Your task to perform on an android device: set default search engine in the chrome app Image 0: 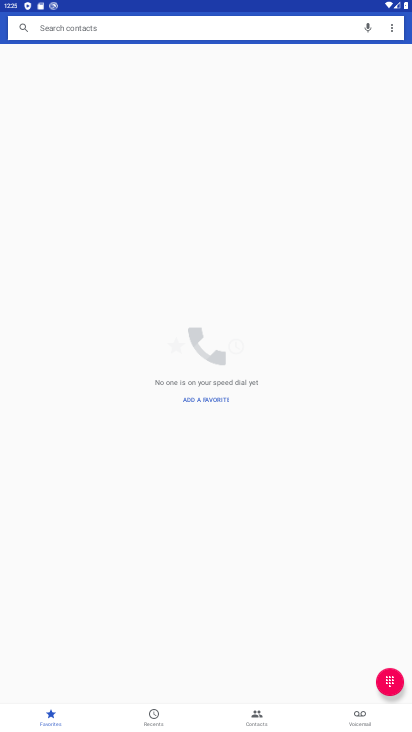
Step 0: press home button
Your task to perform on an android device: set default search engine in the chrome app Image 1: 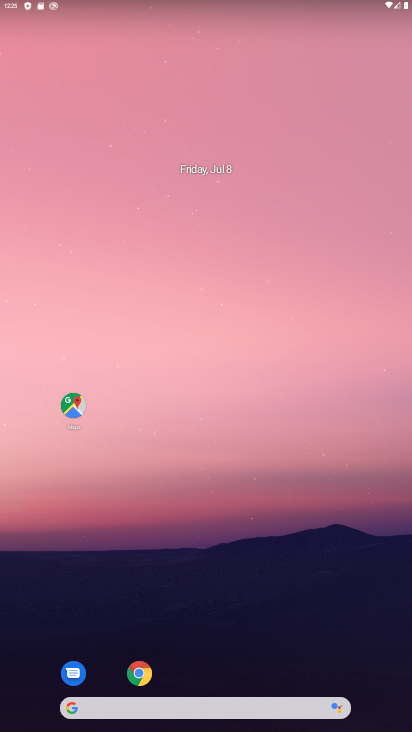
Step 1: drag from (233, 667) to (248, 179)
Your task to perform on an android device: set default search engine in the chrome app Image 2: 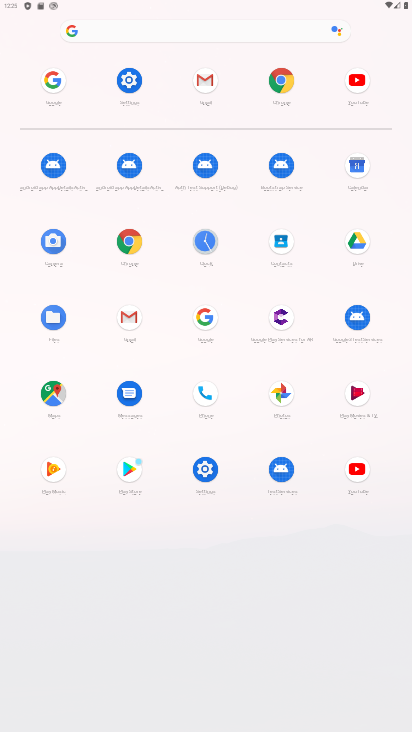
Step 2: click (126, 244)
Your task to perform on an android device: set default search engine in the chrome app Image 3: 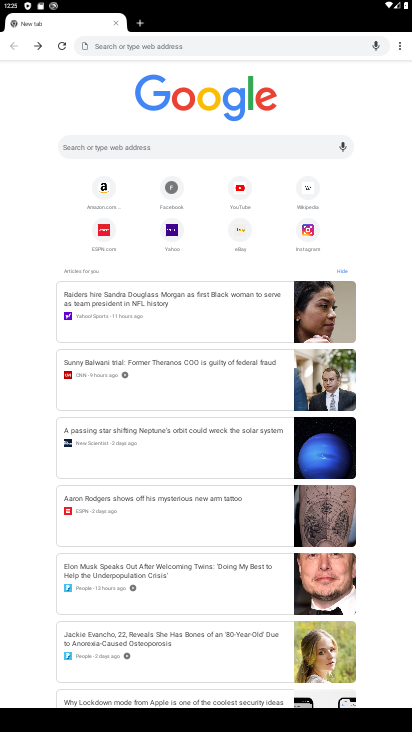
Step 3: click (397, 46)
Your task to perform on an android device: set default search engine in the chrome app Image 4: 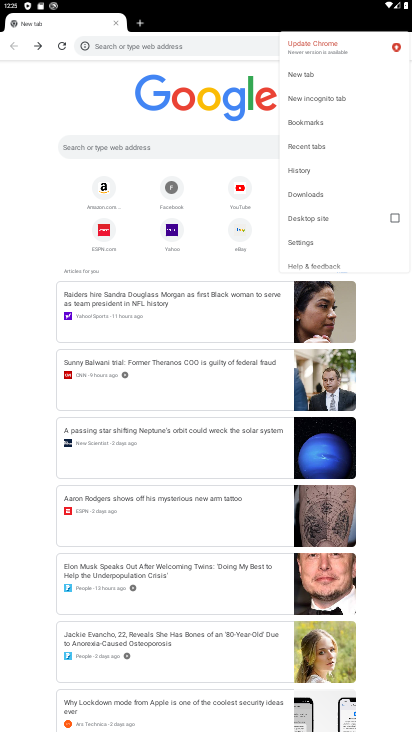
Step 4: click (316, 242)
Your task to perform on an android device: set default search engine in the chrome app Image 5: 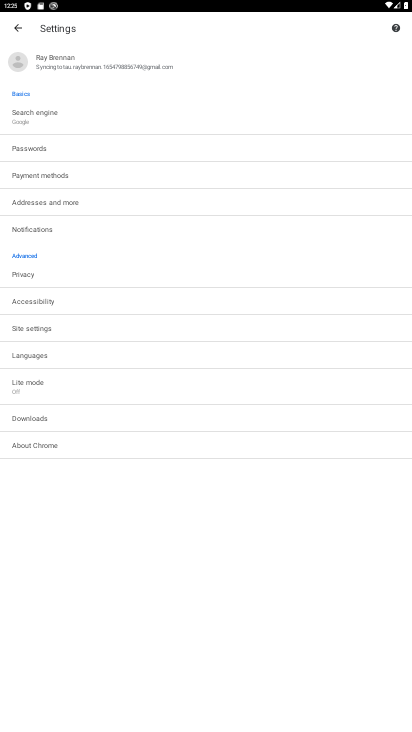
Step 5: click (26, 117)
Your task to perform on an android device: set default search engine in the chrome app Image 6: 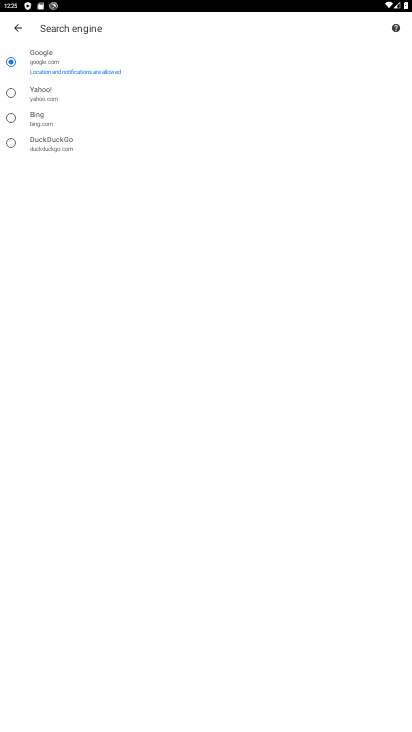
Step 6: click (10, 92)
Your task to perform on an android device: set default search engine in the chrome app Image 7: 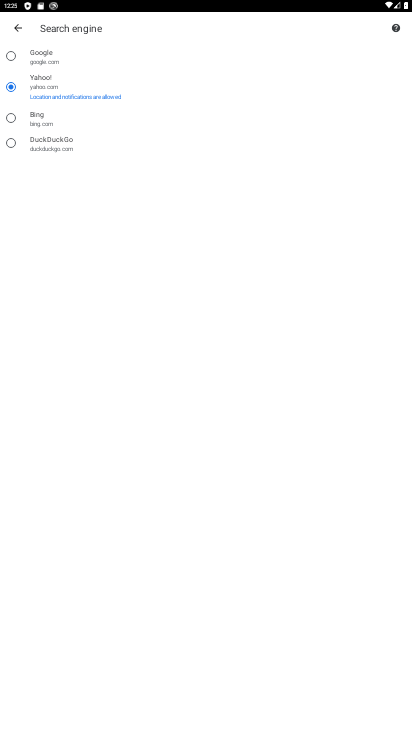
Step 7: task complete